Your task to perform on an android device: Clear the cart on amazon.com. Search for "rayovac triple a" on amazon.com, select the first entry, and add it to the cart. Image 0: 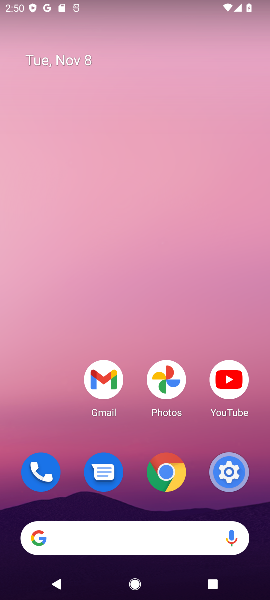
Step 0: click (139, 534)
Your task to perform on an android device: Clear the cart on amazon.com. Search for "rayovac triple a" on amazon.com, select the first entry, and add it to the cart. Image 1: 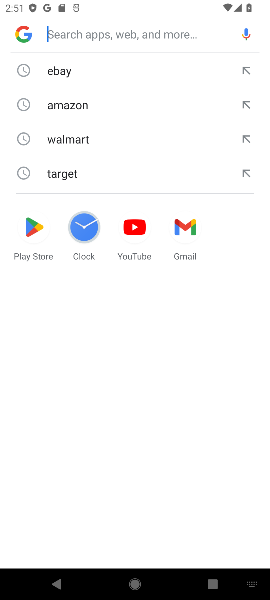
Step 1: click (94, 109)
Your task to perform on an android device: Clear the cart on amazon.com. Search for "rayovac triple a" on amazon.com, select the first entry, and add it to the cart. Image 2: 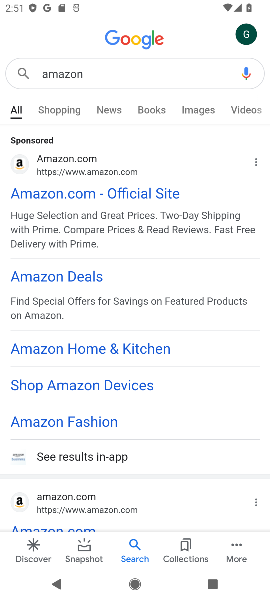
Step 2: click (128, 187)
Your task to perform on an android device: Clear the cart on amazon.com. Search for "rayovac triple a" on amazon.com, select the first entry, and add it to the cart. Image 3: 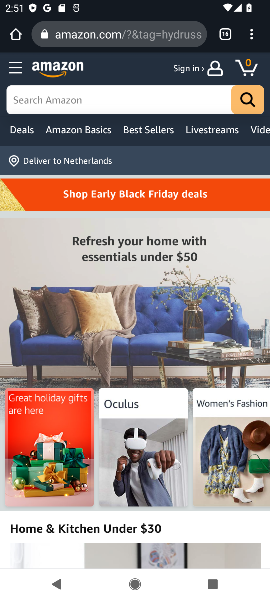
Step 3: click (140, 102)
Your task to perform on an android device: Clear the cart on amazon.com. Search for "rayovac triple a" on amazon.com, select the first entry, and add it to the cart. Image 4: 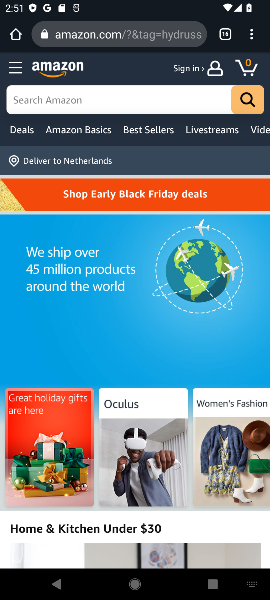
Step 4: type "rayco"
Your task to perform on an android device: Clear the cart on amazon.com. Search for "rayovac triple a" on amazon.com, select the first entry, and add it to the cart. Image 5: 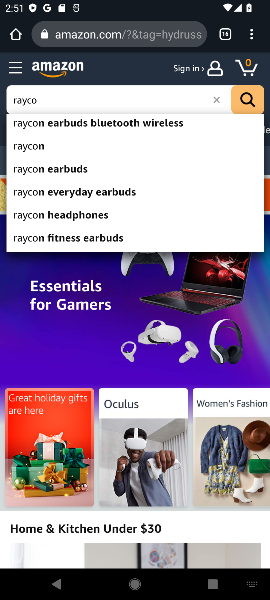
Step 5: click (78, 133)
Your task to perform on an android device: Clear the cart on amazon.com. Search for "rayovac triple a" on amazon.com, select the first entry, and add it to the cart. Image 6: 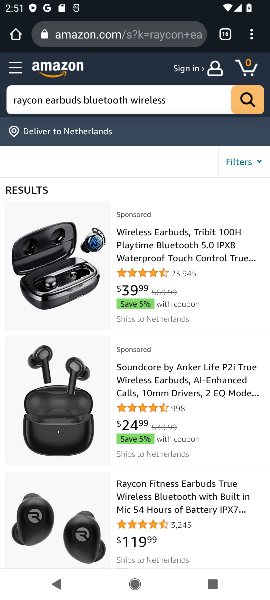
Step 6: click (171, 247)
Your task to perform on an android device: Clear the cart on amazon.com. Search for "rayovac triple a" on amazon.com, select the first entry, and add it to the cart. Image 7: 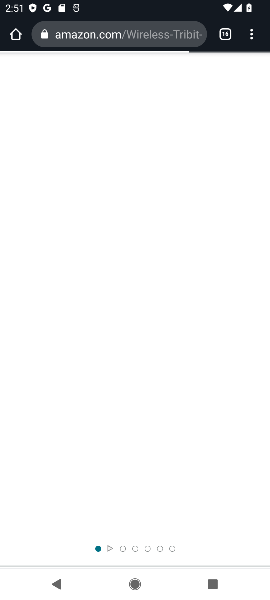
Step 7: task complete